Your task to perform on an android device: uninstall "Etsy: Buy & Sell Unique Items" Image 0: 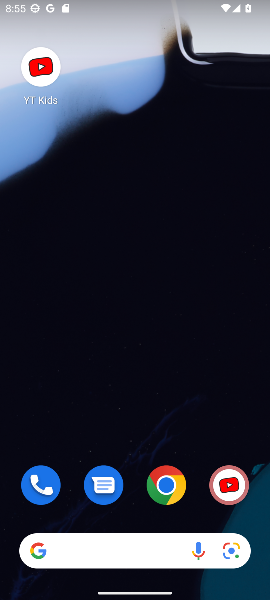
Step 0: drag from (120, 524) to (124, 77)
Your task to perform on an android device: uninstall "Etsy: Buy & Sell Unique Items" Image 1: 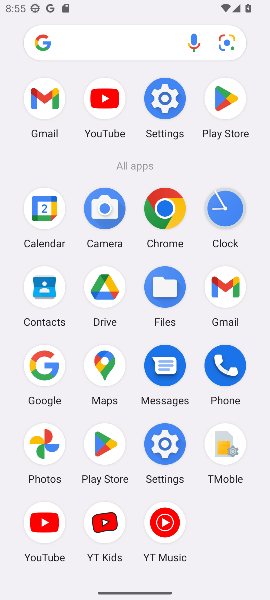
Step 1: click (227, 102)
Your task to perform on an android device: uninstall "Etsy: Buy & Sell Unique Items" Image 2: 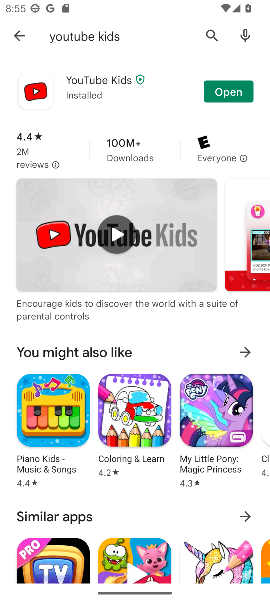
Step 2: click (29, 46)
Your task to perform on an android device: uninstall "Etsy: Buy & Sell Unique Items" Image 3: 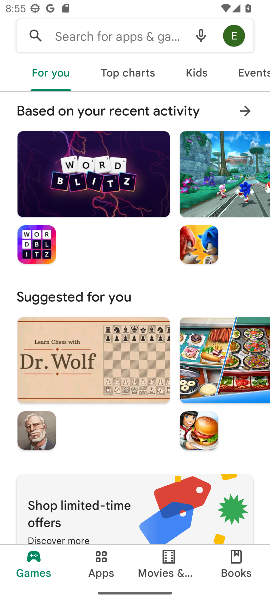
Step 3: click (78, 37)
Your task to perform on an android device: uninstall "Etsy: Buy & Sell Unique Items" Image 4: 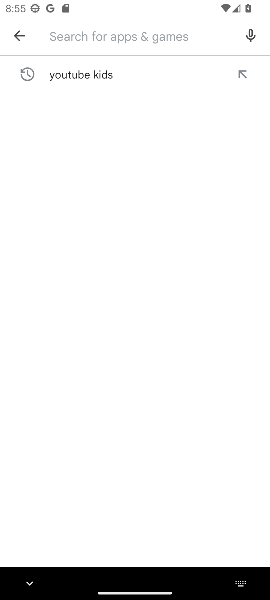
Step 4: type "Etsy"
Your task to perform on an android device: uninstall "Etsy: Buy & Sell Unique Items" Image 5: 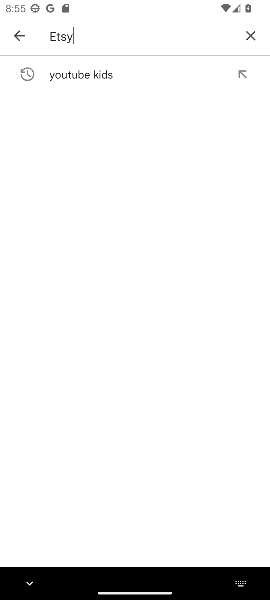
Step 5: type ""
Your task to perform on an android device: uninstall "Etsy: Buy & Sell Unique Items" Image 6: 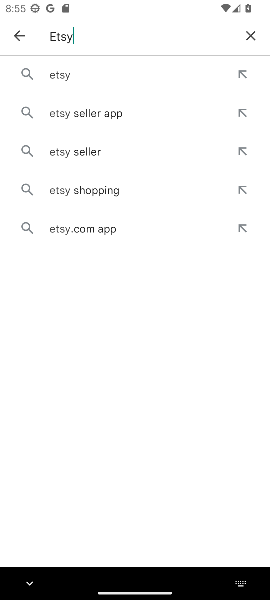
Step 6: click (42, 67)
Your task to perform on an android device: uninstall "Etsy: Buy & Sell Unique Items" Image 7: 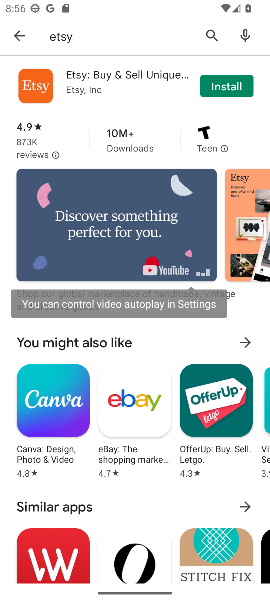
Step 7: click (106, 111)
Your task to perform on an android device: uninstall "Etsy: Buy & Sell Unique Items" Image 8: 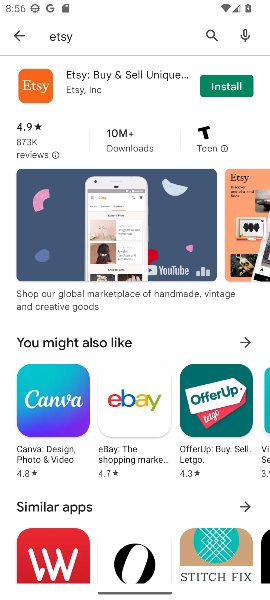
Step 8: task complete